Your task to perform on an android device: Go to Yahoo.com Image 0: 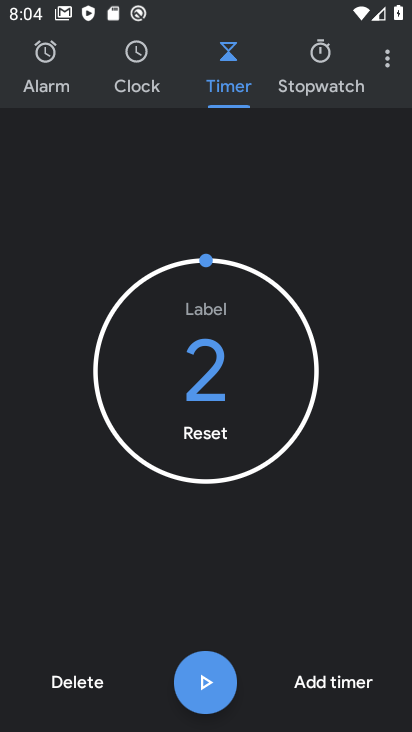
Step 0: press home button
Your task to perform on an android device: Go to Yahoo.com Image 1: 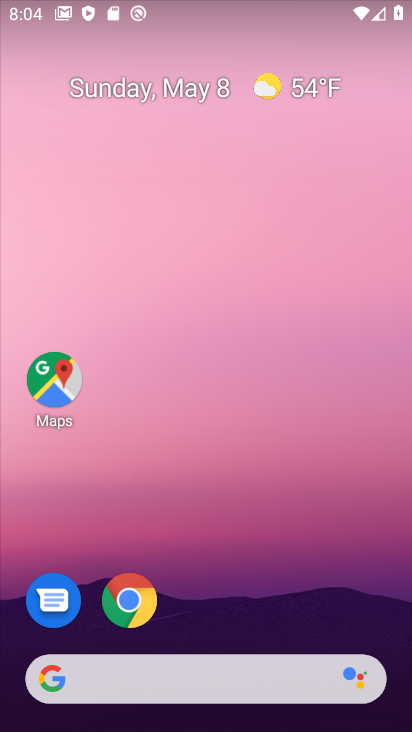
Step 1: click (121, 602)
Your task to perform on an android device: Go to Yahoo.com Image 2: 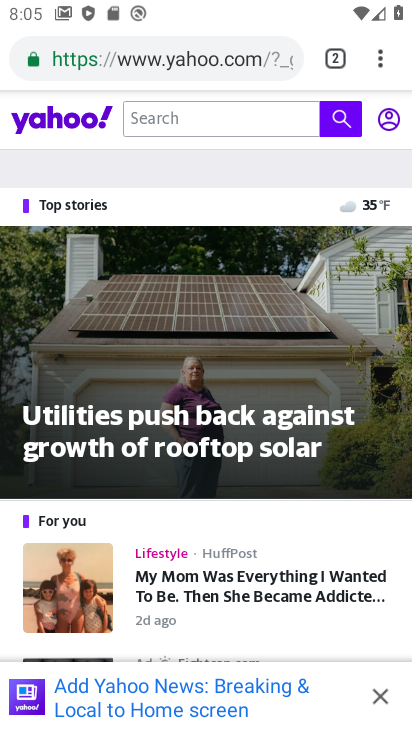
Step 2: task complete